Your task to perform on an android device: Go to display settings Image 0: 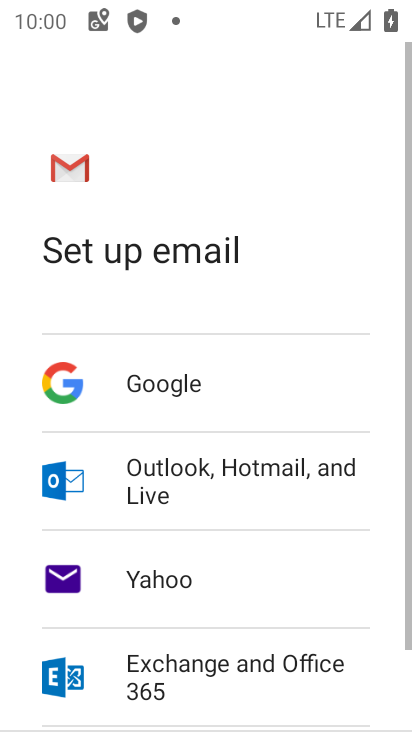
Step 0: press home button
Your task to perform on an android device: Go to display settings Image 1: 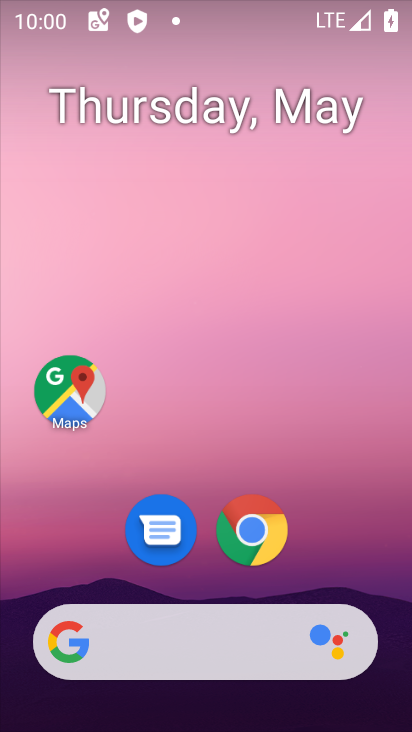
Step 1: drag from (249, 723) to (285, 71)
Your task to perform on an android device: Go to display settings Image 2: 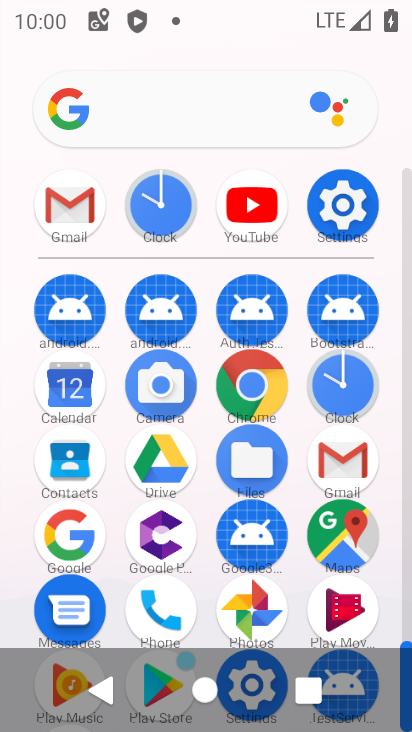
Step 2: click (346, 205)
Your task to perform on an android device: Go to display settings Image 3: 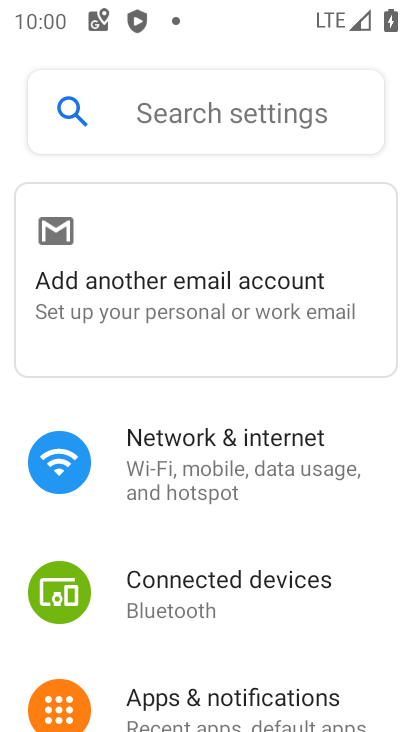
Step 3: drag from (274, 594) to (287, 181)
Your task to perform on an android device: Go to display settings Image 4: 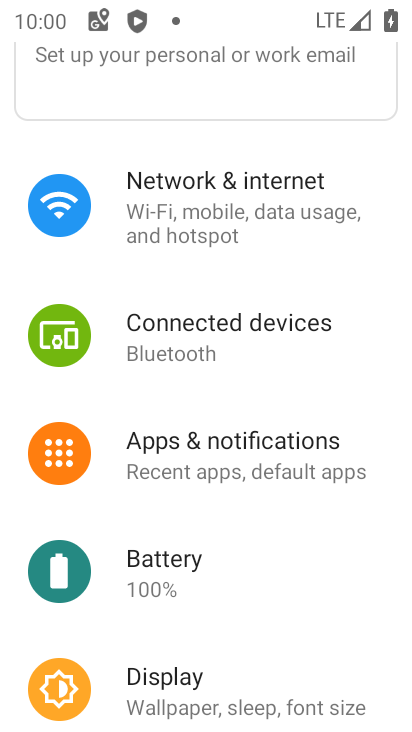
Step 4: drag from (240, 647) to (237, 343)
Your task to perform on an android device: Go to display settings Image 5: 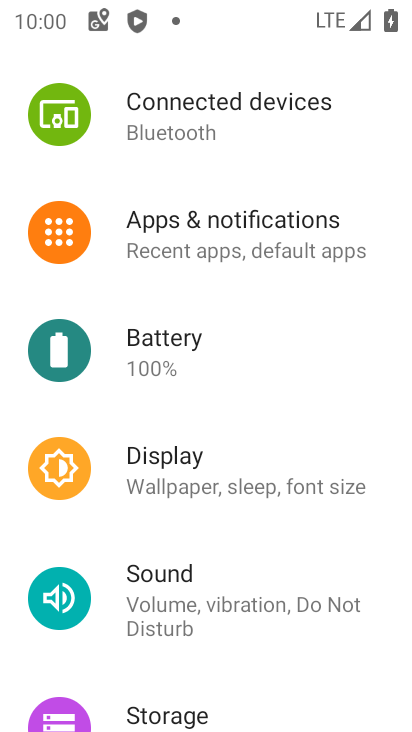
Step 5: click (236, 500)
Your task to perform on an android device: Go to display settings Image 6: 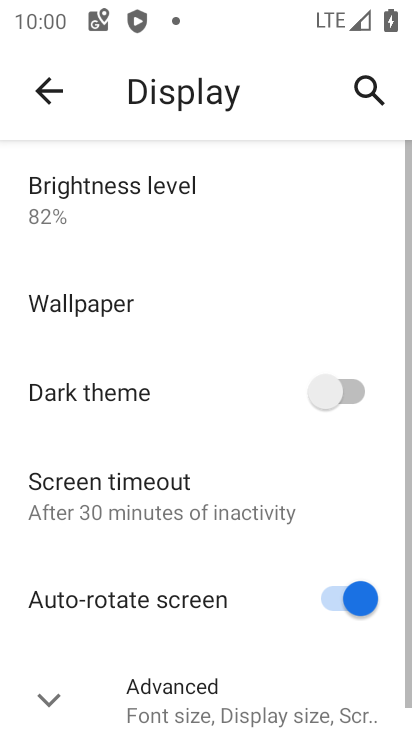
Step 6: task complete